Your task to perform on an android device: Open Maps and search for coffee Image 0: 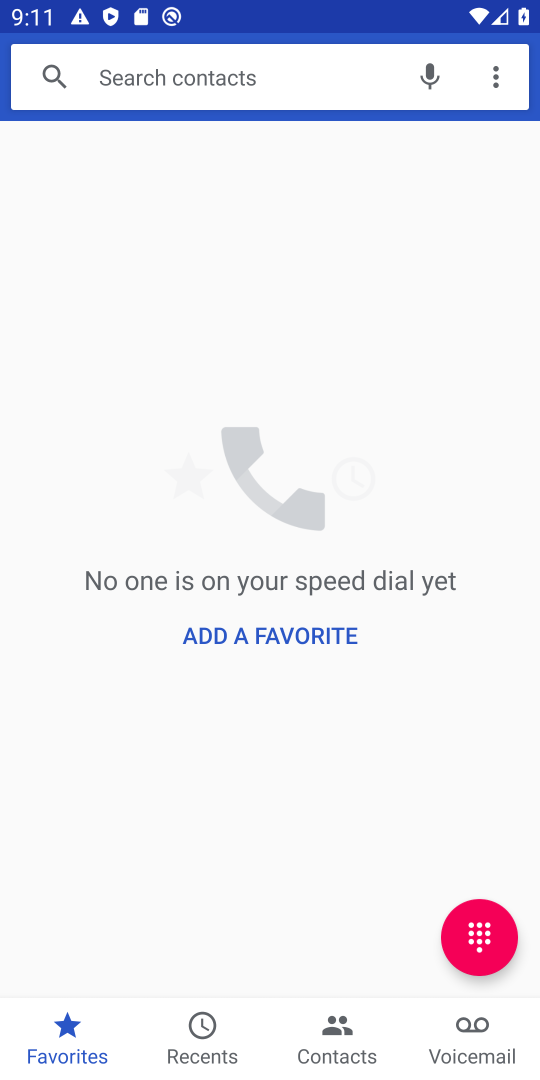
Step 0: press home button
Your task to perform on an android device: Open Maps and search for coffee Image 1: 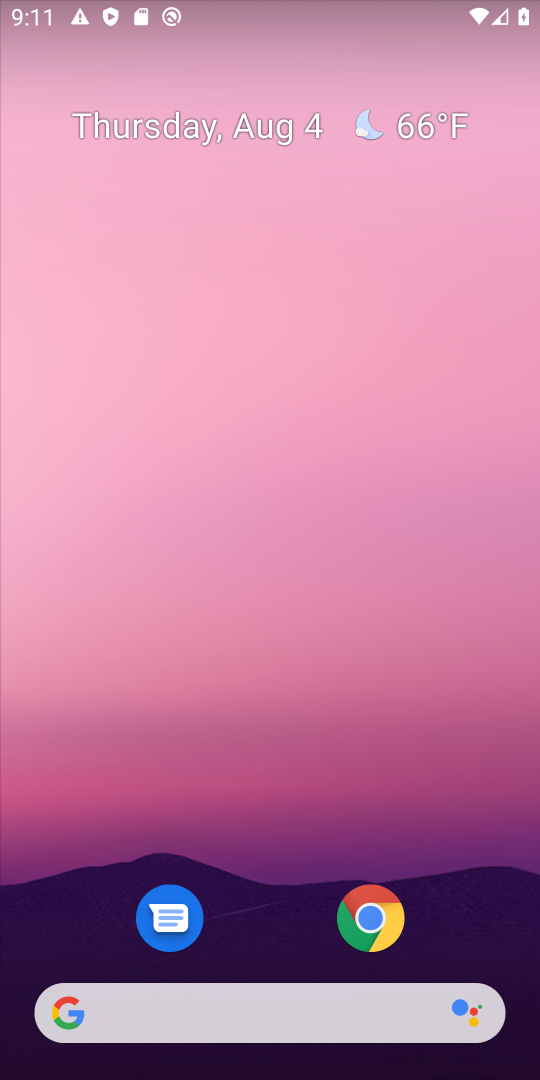
Step 1: drag from (276, 940) to (332, 45)
Your task to perform on an android device: Open Maps and search for coffee Image 2: 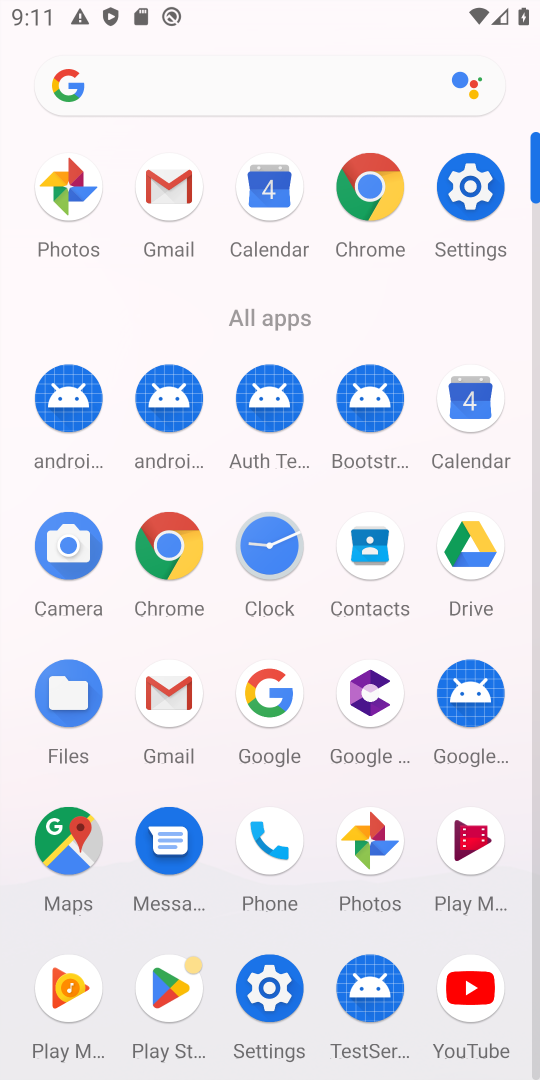
Step 2: click (71, 827)
Your task to perform on an android device: Open Maps and search for coffee Image 3: 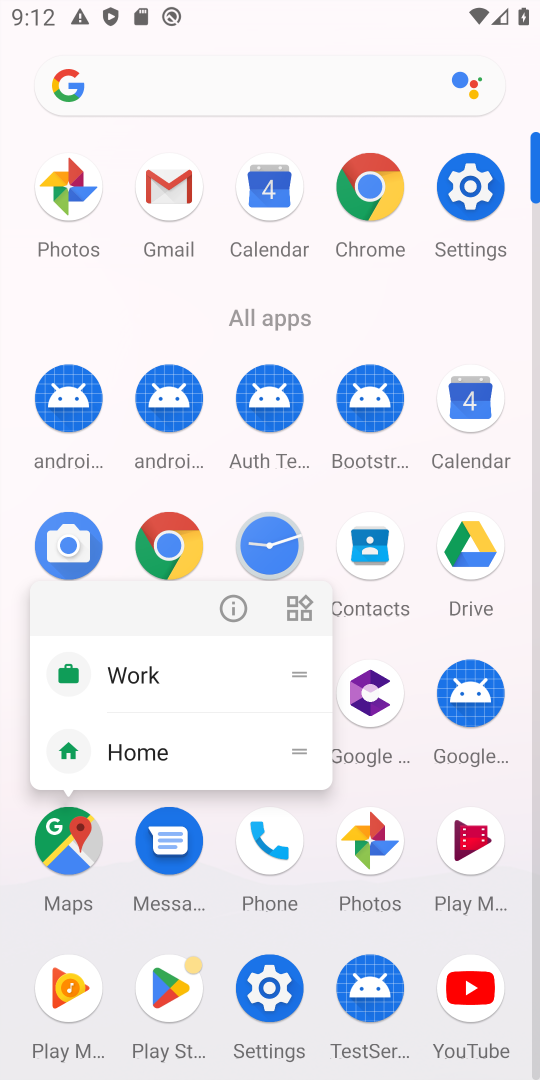
Step 3: click (44, 837)
Your task to perform on an android device: Open Maps and search for coffee Image 4: 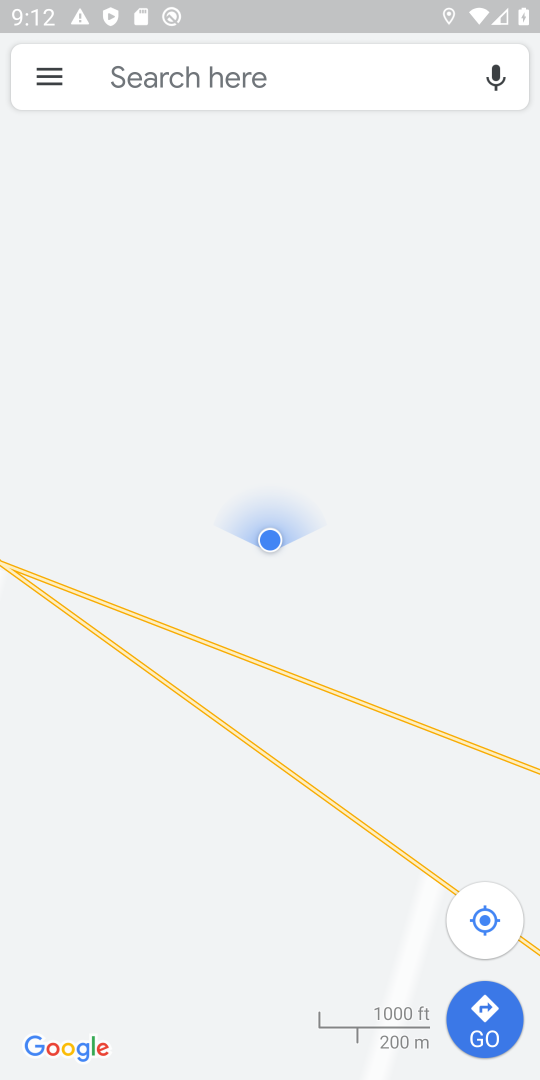
Step 4: click (171, 65)
Your task to perform on an android device: Open Maps and search for coffee Image 5: 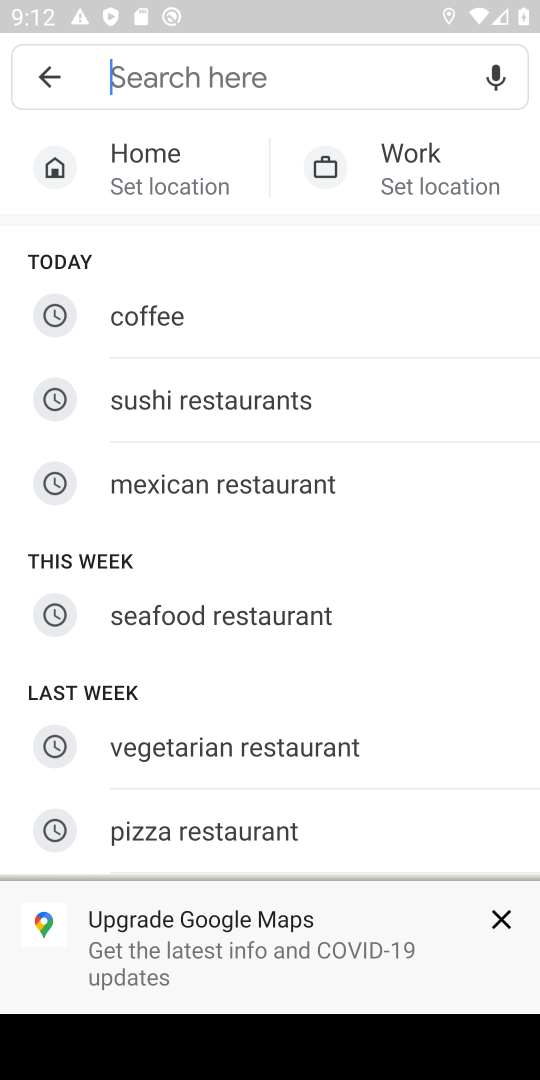
Step 5: type "coffee"
Your task to perform on an android device: Open Maps and search for coffee Image 6: 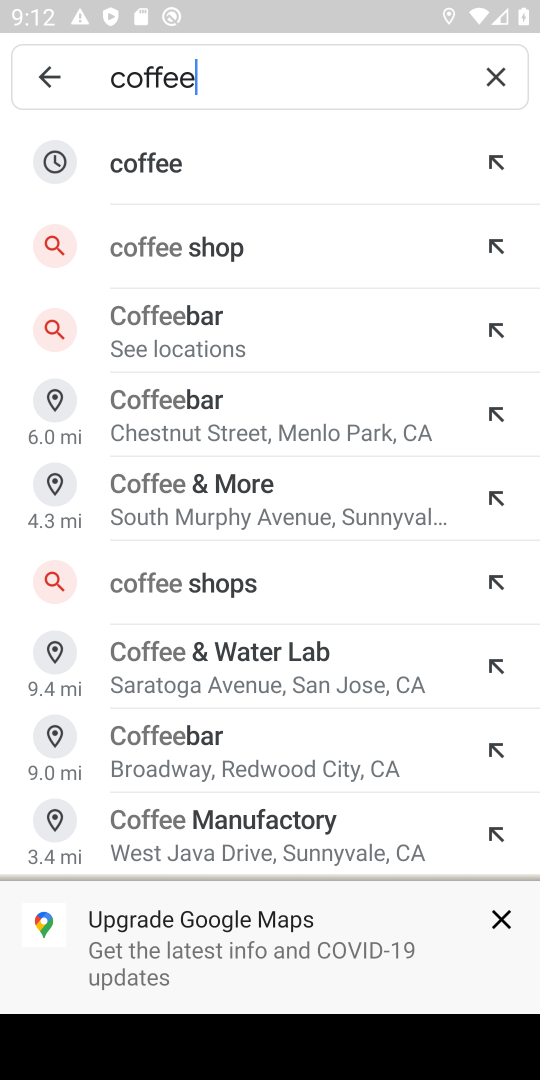
Step 6: click (160, 165)
Your task to perform on an android device: Open Maps and search for coffee Image 7: 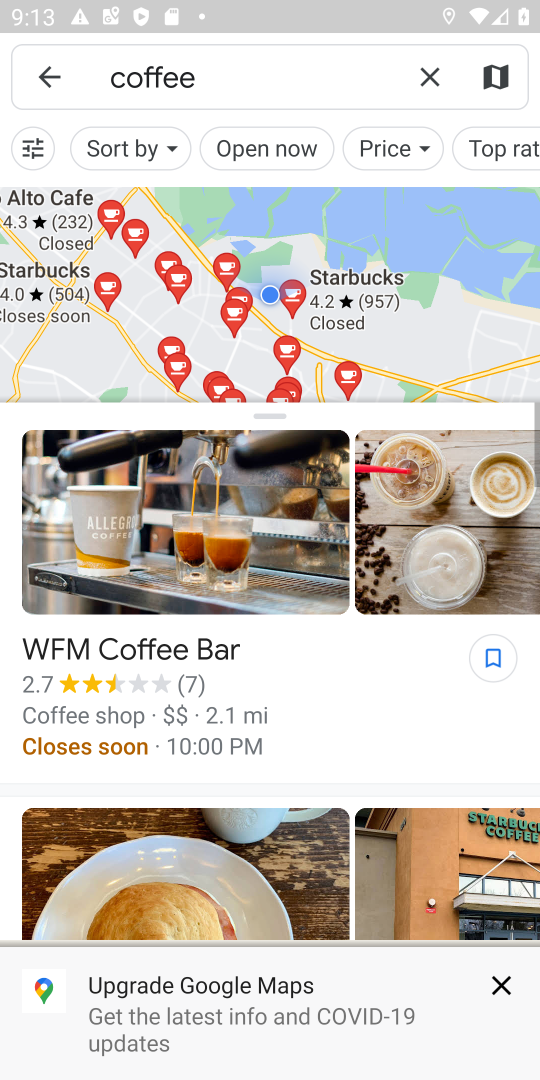
Step 7: task complete